Your task to perform on an android device: change keyboard looks Image 0: 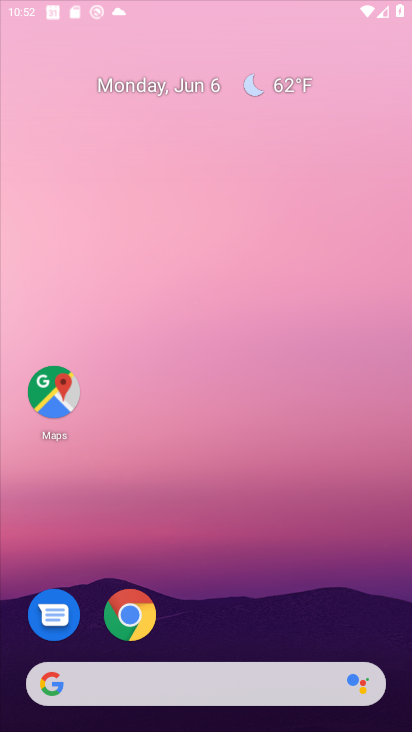
Step 0: click (102, 60)
Your task to perform on an android device: change keyboard looks Image 1: 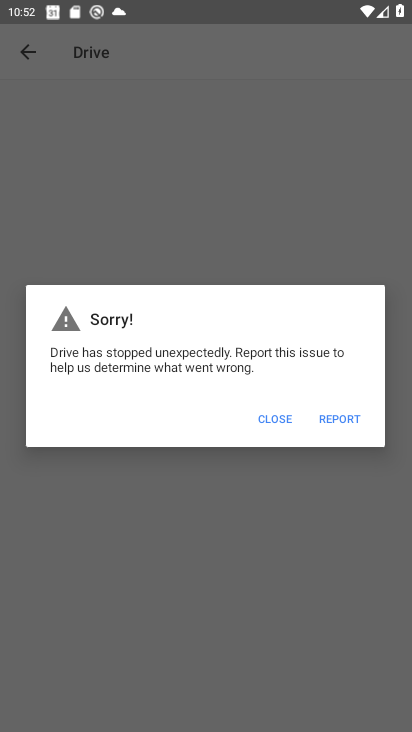
Step 1: drag from (247, 548) to (158, 1)
Your task to perform on an android device: change keyboard looks Image 2: 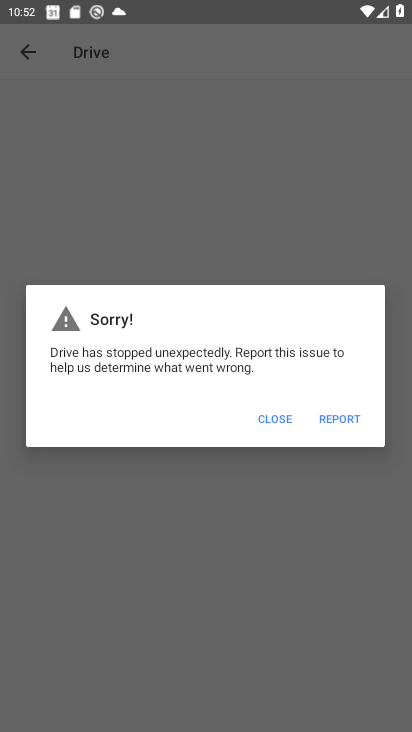
Step 2: click (273, 412)
Your task to perform on an android device: change keyboard looks Image 3: 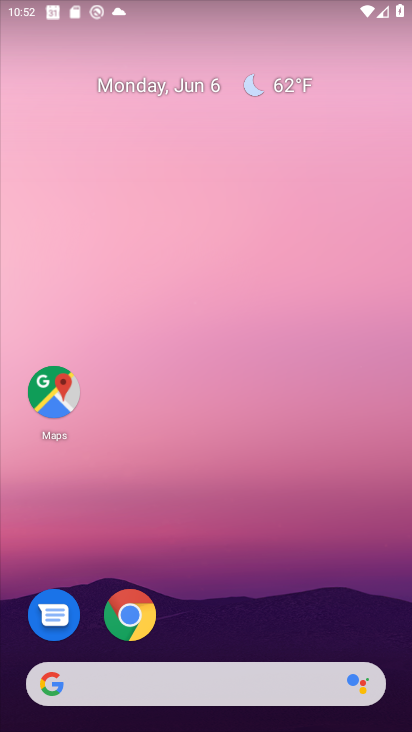
Step 3: drag from (241, 625) to (121, 82)
Your task to perform on an android device: change keyboard looks Image 4: 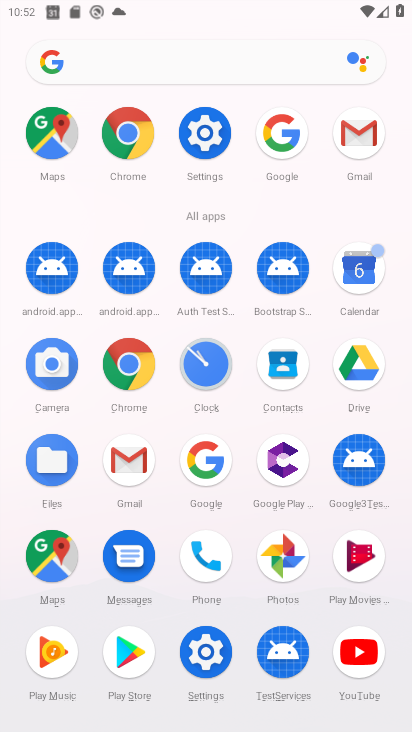
Step 4: click (200, 664)
Your task to perform on an android device: change keyboard looks Image 5: 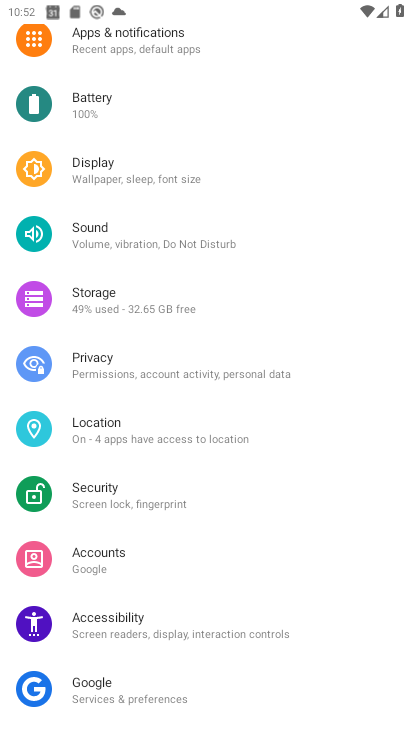
Step 5: drag from (160, 581) to (168, 273)
Your task to perform on an android device: change keyboard looks Image 6: 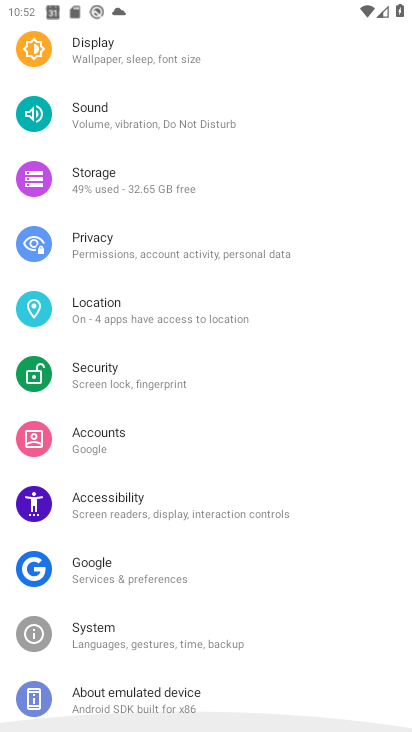
Step 6: drag from (144, 500) to (93, 161)
Your task to perform on an android device: change keyboard looks Image 7: 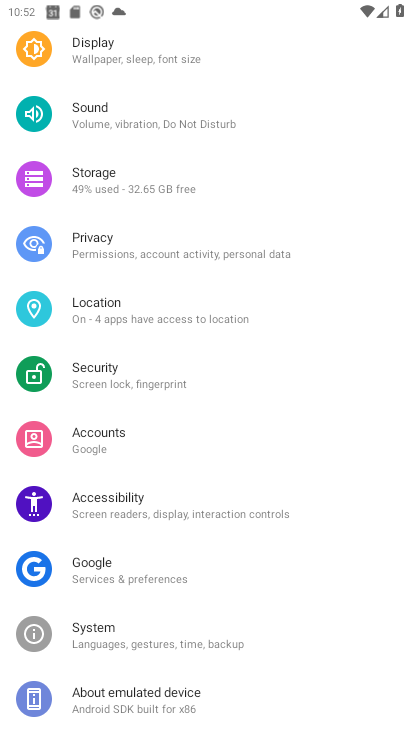
Step 7: click (95, 636)
Your task to perform on an android device: change keyboard looks Image 8: 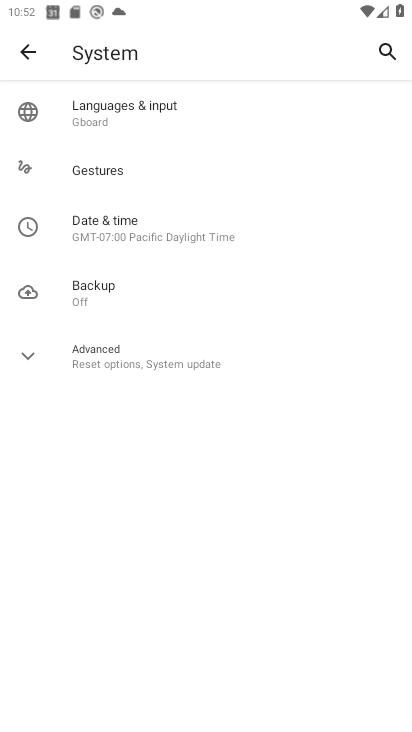
Step 8: click (68, 119)
Your task to perform on an android device: change keyboard looks Image 9: 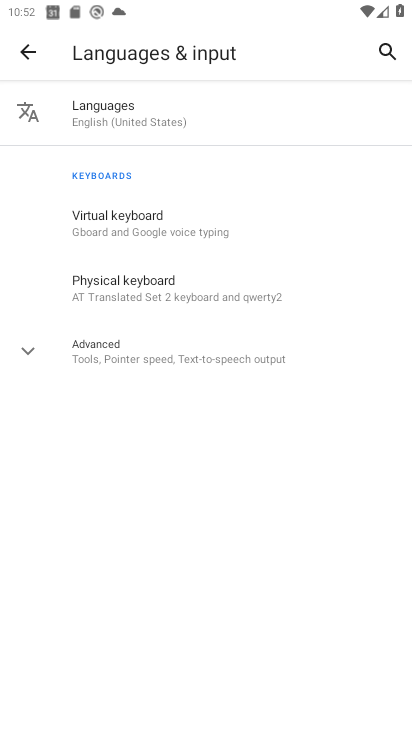
Step 9: click (109, 110)
Your task to perform on an android device: change keyboard looks Image 10: 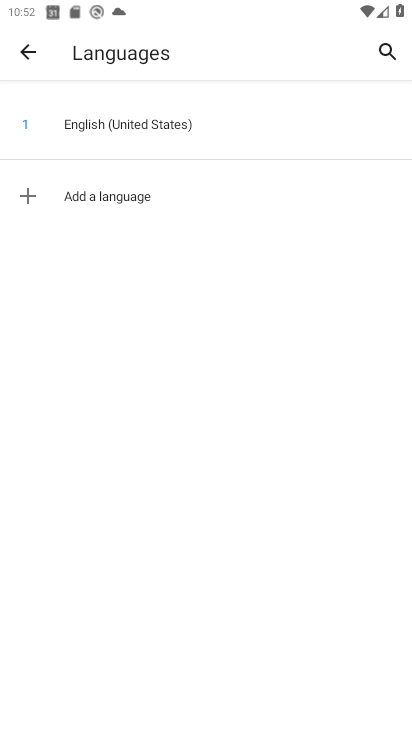
Step 10: click (24, 43)
Your task to perform on an android device: change keyboard looks Image 11: 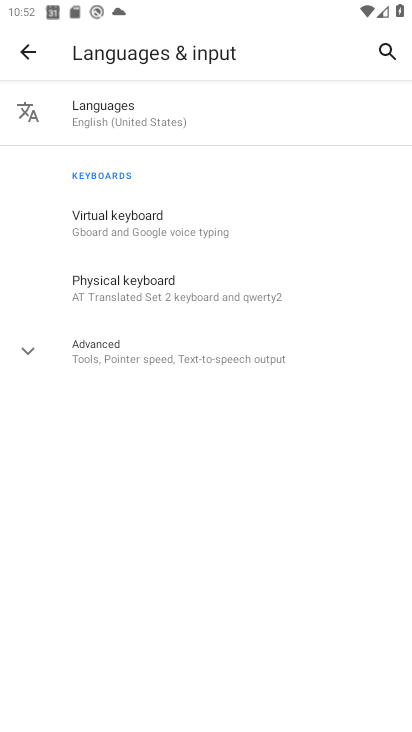
Step 11: click (124, 222)
Your task to perform on an android device: change keyboard looks Image 12: 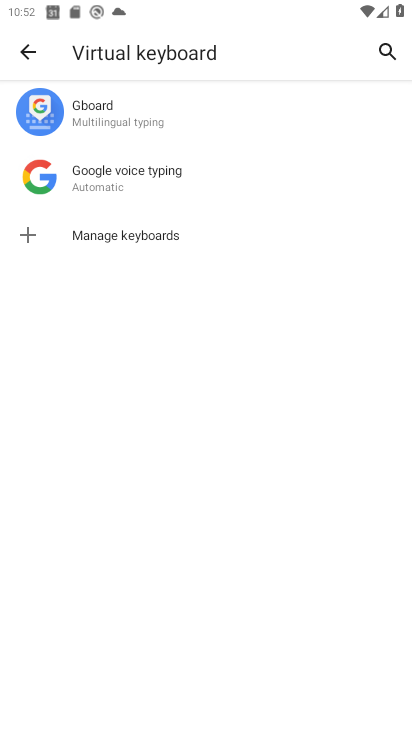
Step 12: click (81, 117)
Your task to perform on an android device: change keyboard looks Image 13: 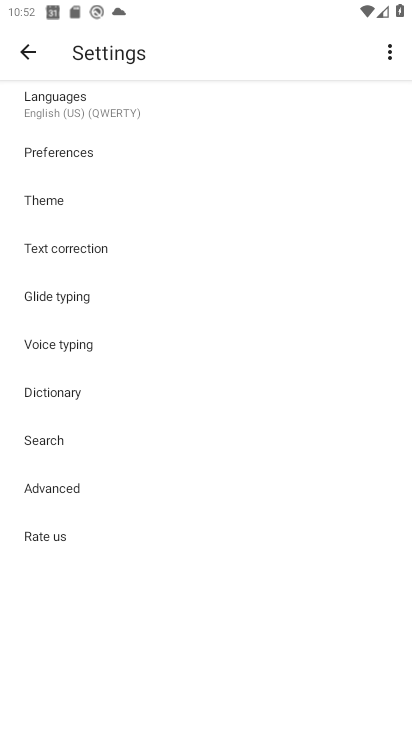
Step 13: click (40, 202)
Your task to perform on an android device: change keyboard looks Image 14: 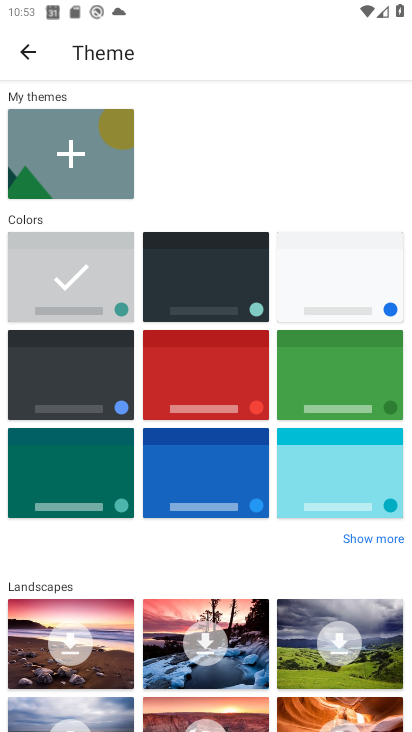
Step 14: click (213, 375)
Your task to perform on an android device: change keyboard looks Image 15: 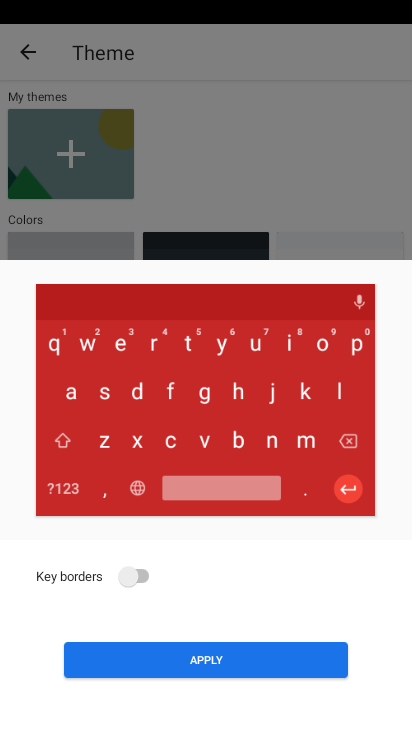
Step 15: click (220, 658)
Your task to perform on an android device: change keyboard looks Image 16: 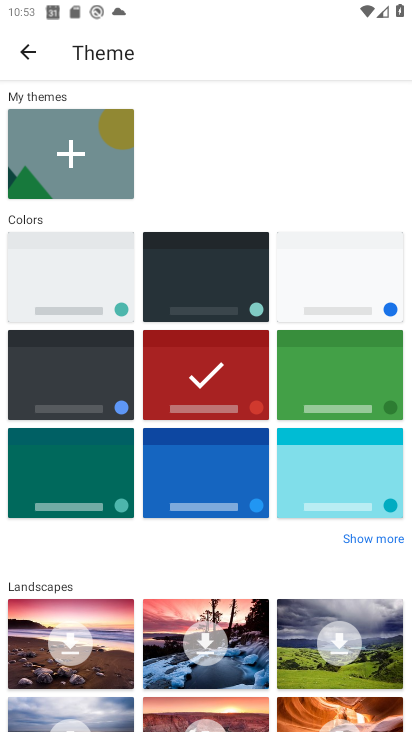
Step 16: task complete